Your task to perform on an android device: change text size in settings app Image 0: 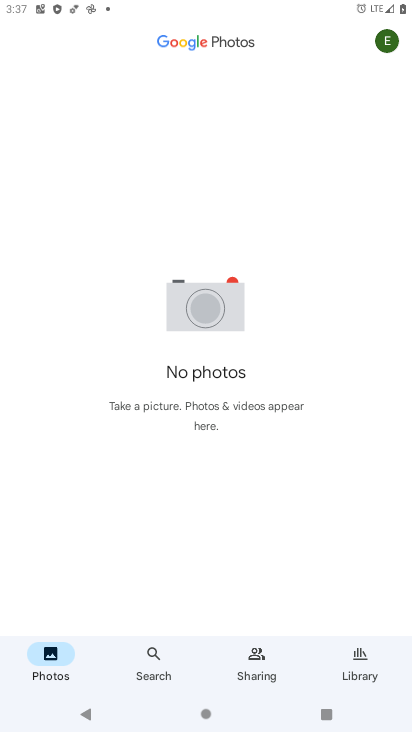
Step 0: press home button
Your task to perform on an android device: change text size in settings app Image 1: 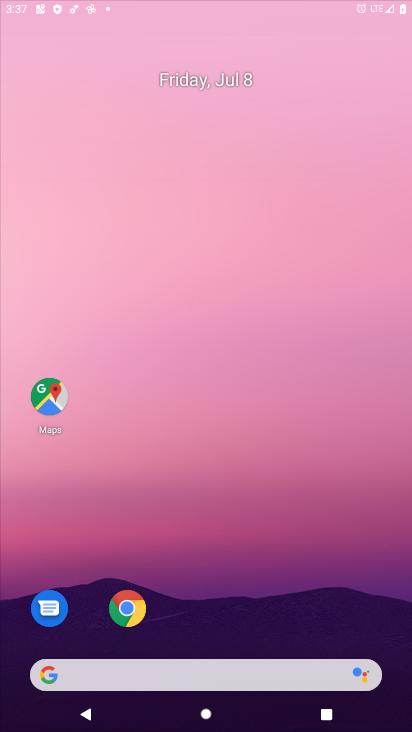
Step 1: drag from (189, 640) to (227, 11)
Your task to perform on an android device: change text size in settings app Image 2: 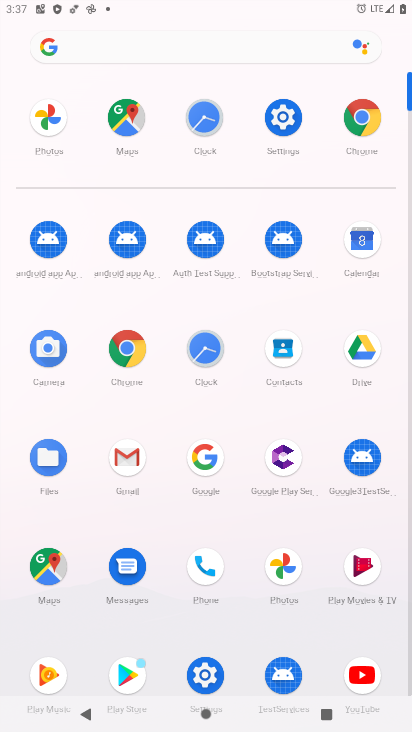
Step 2: click (278, 108)
Your task to perform on an android device: change text size in settings app Image 3: 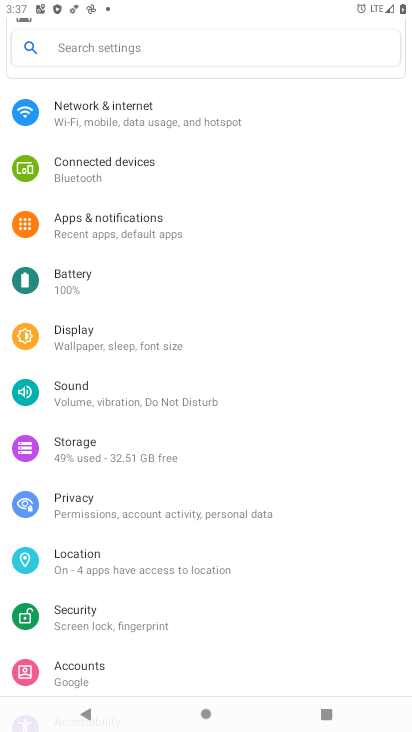
Step 3: drag from (104, 638) to (171, 29)
Your task to perform on an android device: change text size in settings app Image 4: 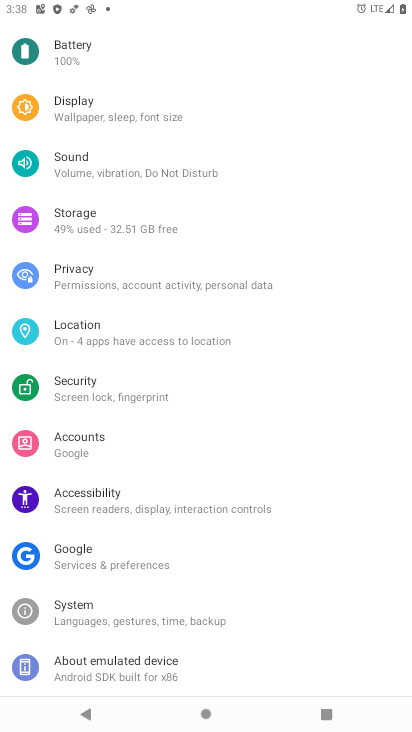
Step 4: click (116, 610)
Your task to perform on an android device: change text size in settings app Image 5: 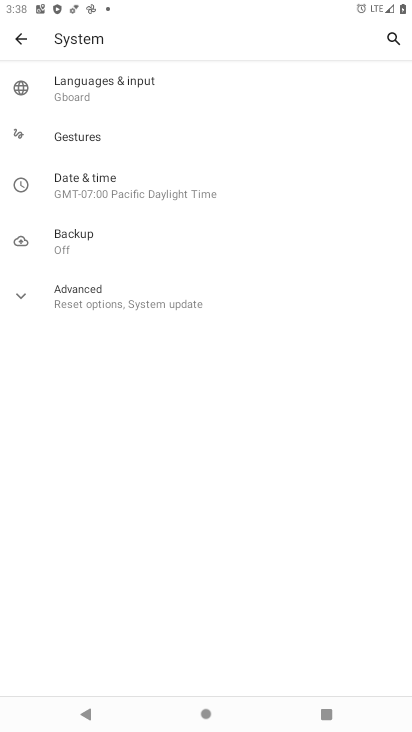
Step 5: press back button
Your task to perform on an android device: change text size in settings app Image 6: 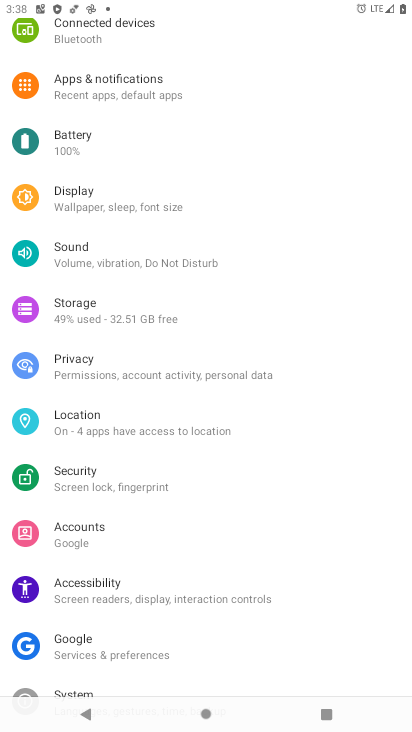
Step 6: click (78, 575)
Your task to perform on an android device: change text size in settings app Image 7: 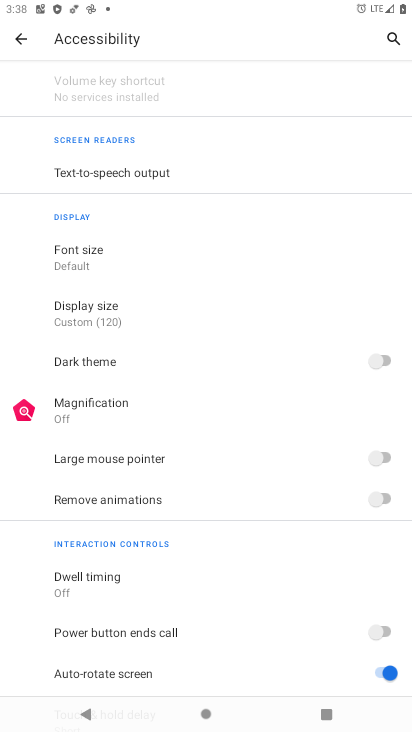
Step 7: click (105, 258)
Your task to perform on an android device: change text size in settings app Image 8: 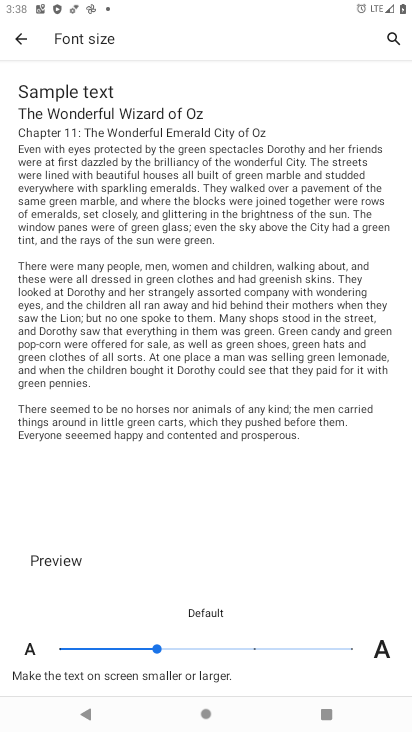
Step 8: click (252, 644)
Your task to perform on an android device: change text size in settings app Image 9: 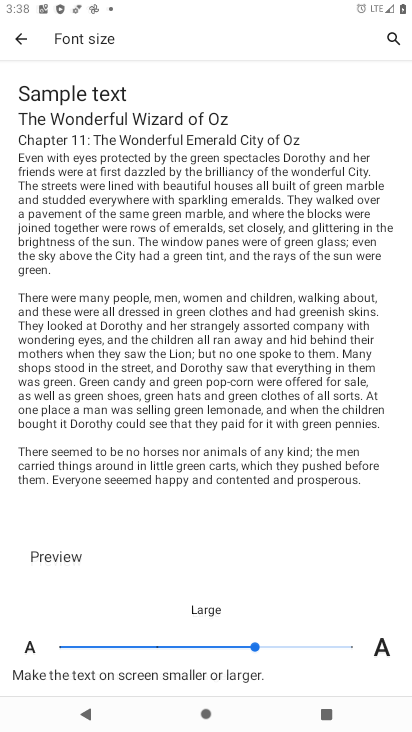
Step 9: task complete